Your task to perform on an android device: turn off airplane mode Image 0: 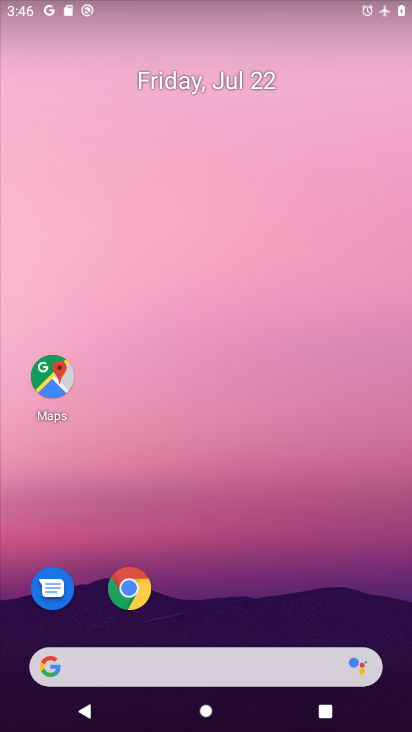
Step 0: drag from (318, 570) to (350, 380)
Your task to perform on an android device: turn off airplane mode Image 1: 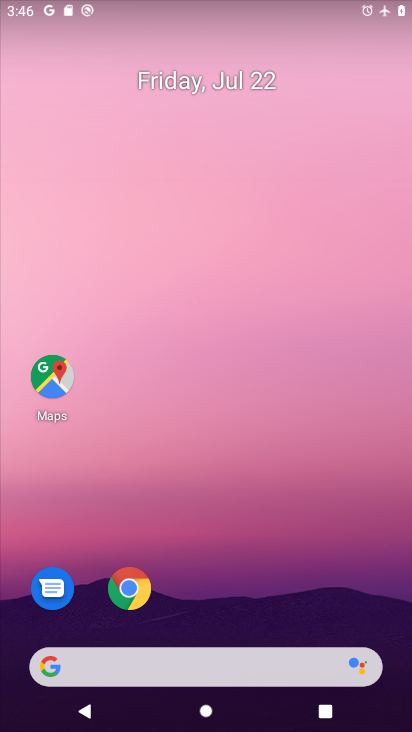
Step 1: drag from (358, 5) to (273, 436)
Your task to perform on an android device: turn off airplane mode Image 2: 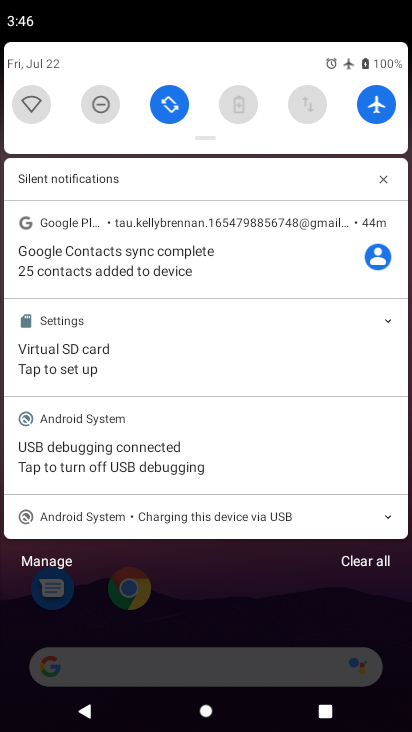
Step 2: click (374, 98)
Your task to perform on an android device: turn off airplane mode Image 3: 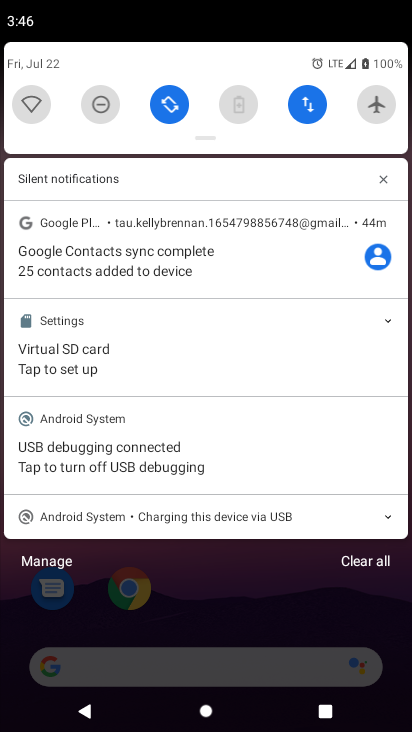
Step 3: task complete